Your task to perform on an android device: Open Chrome and go to settings Image 0: 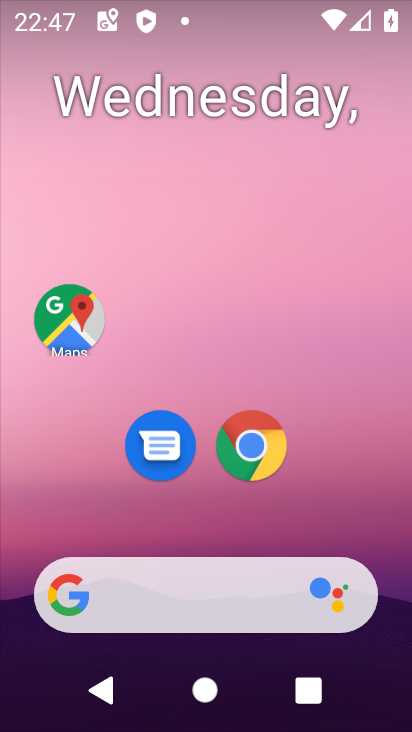
Step 0: drag from (341, 531) to (324, 187)
Your task to perform on an android device: Open Chrome and go to settings Image 1: 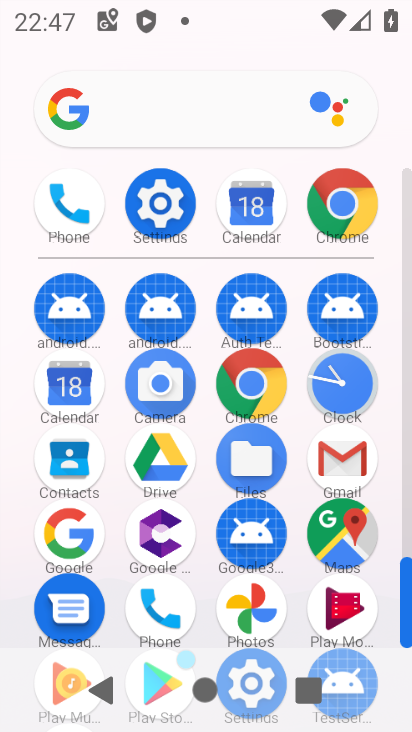
Step 1: click (338, 206)
Your task to perform on an android device: Open Chrome and go to settings Image 2: 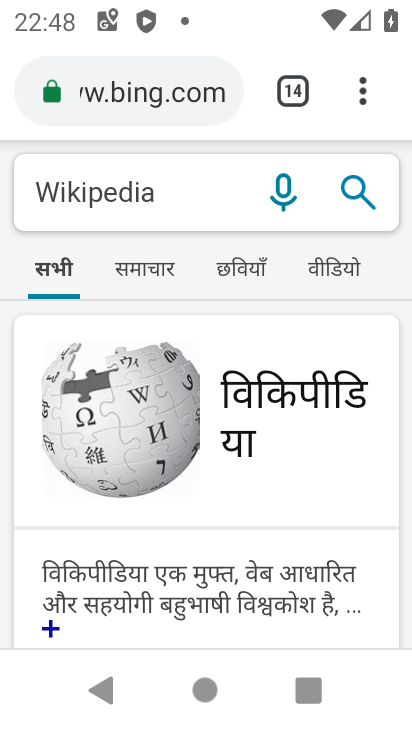
Step 2: click (358, 81)
Your task to perform on an android device: Open Chrome and go to settings Image 3: 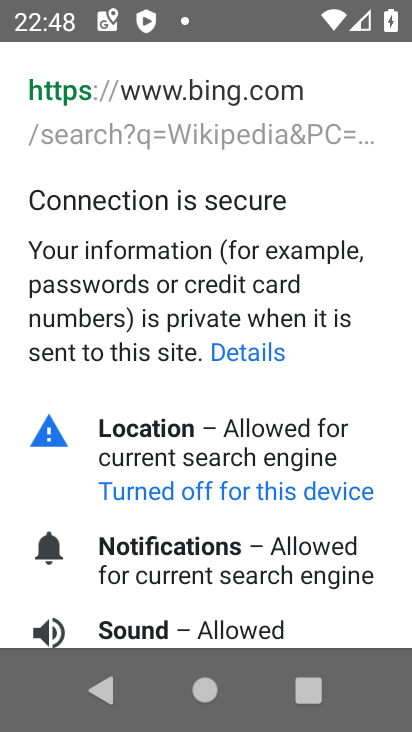
Step 3: press back button
Your task to perform on an android device: Open Chrome and go to settings Image 4: 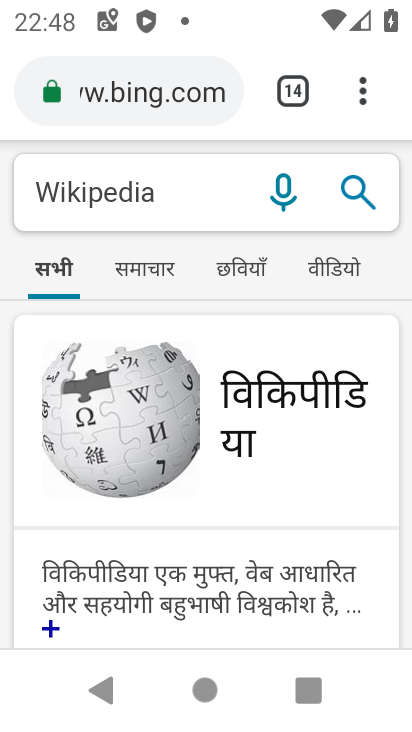
Step 4: click (381, 86)
Your task to perform on an android device: Open Chrome and go to settings Image 5: 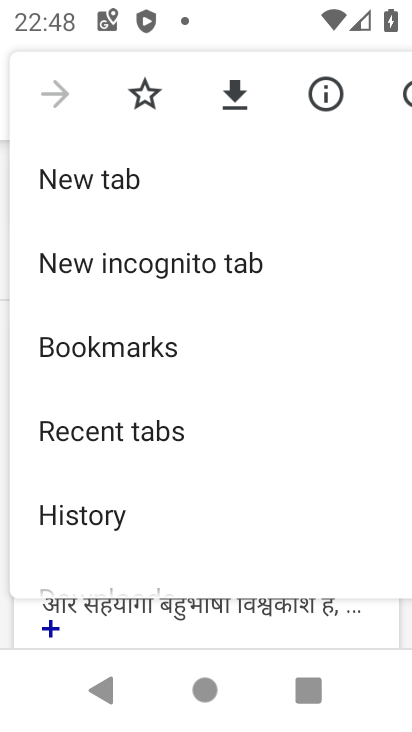
Step 5: drag from (152, 517) to (161, 368)
Your task to perform on an android device: Open Chrome and go to settings Image 6: 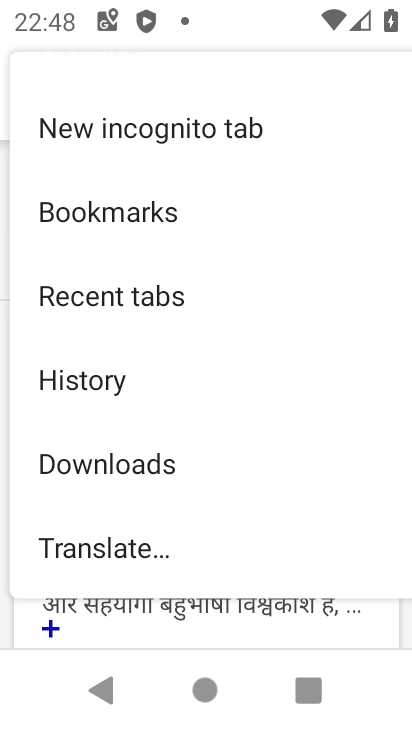
Step 6: drag from (114, 511) to (166, 255)
Your task to perform on an android device: Open Chrome and go to settings Image 7: 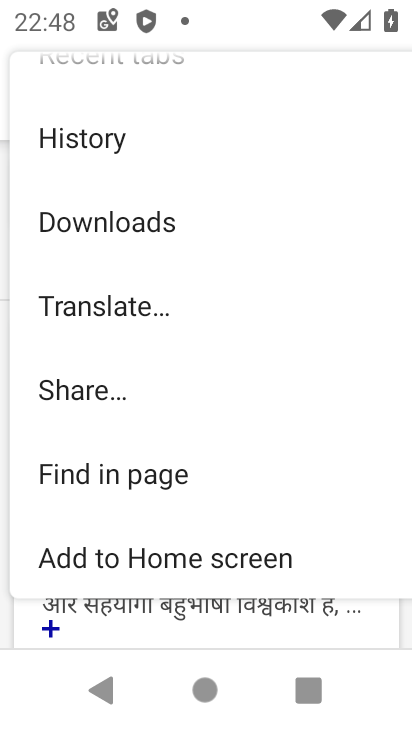
Step 7: drag from (150, 428) to (173, 290)
Your task to perform on an android device: Open Chrome and go to settings Image 8: 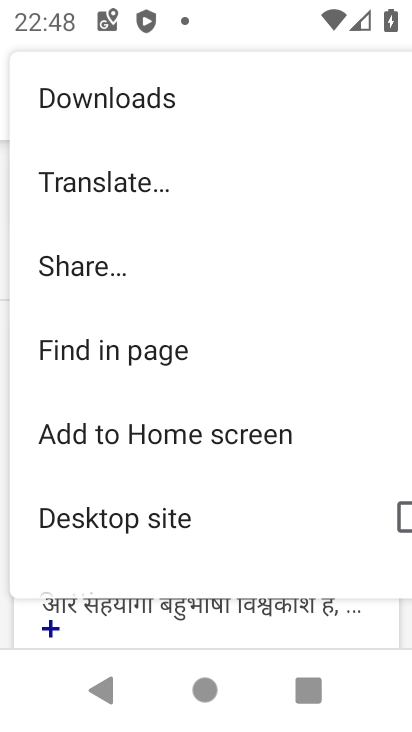
Step 8: drag from (203, 497) to (255, 133)
Your task to perform on an android device: Open Chrome and go to settings Image 9: 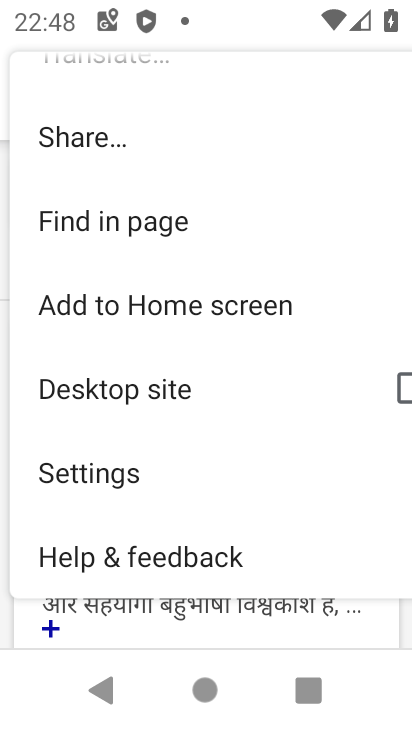
Step 9: click (108, 469)
Your task to perform on an android device: Open Chrome and go to settings Image 10: 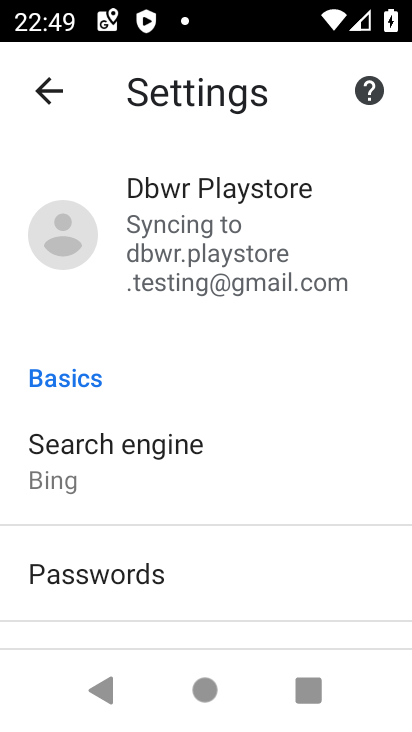
Step 10: task complete